Your task to perform on an android device: turn on wifi Image 0: 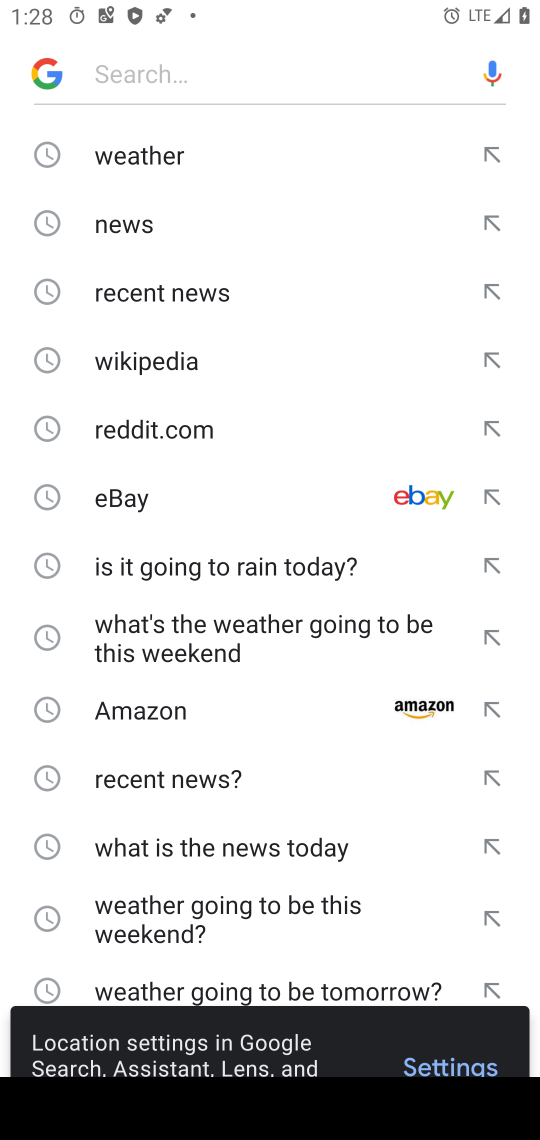
Step 0: press home button
Your task to perform on an android device: turn on wifi Image 1: 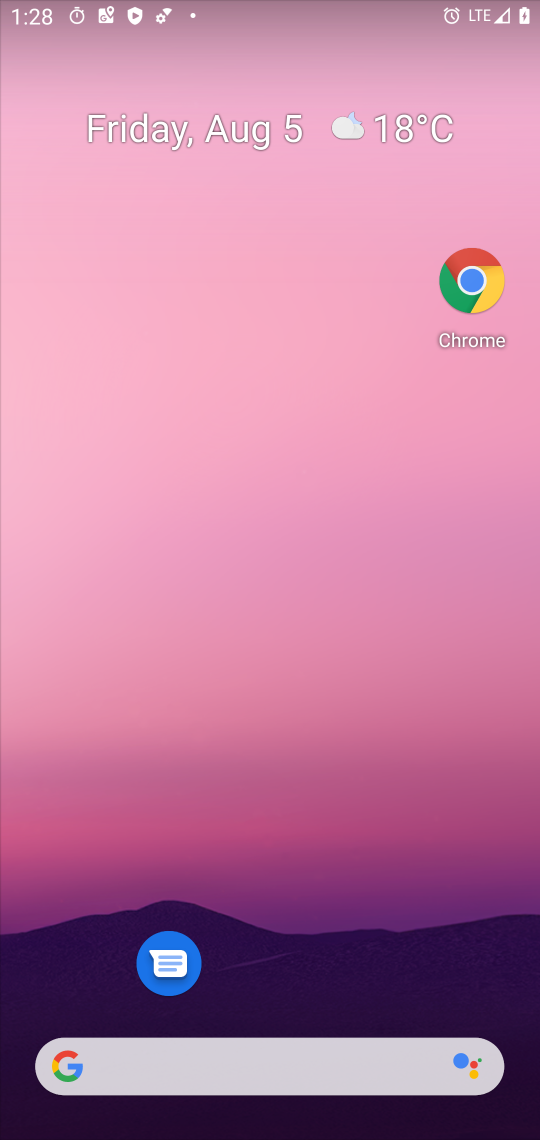
Step 1: drag from (311, 901) to (441, 73)
Your task to perform on an android device: turn on wifi Image 2: 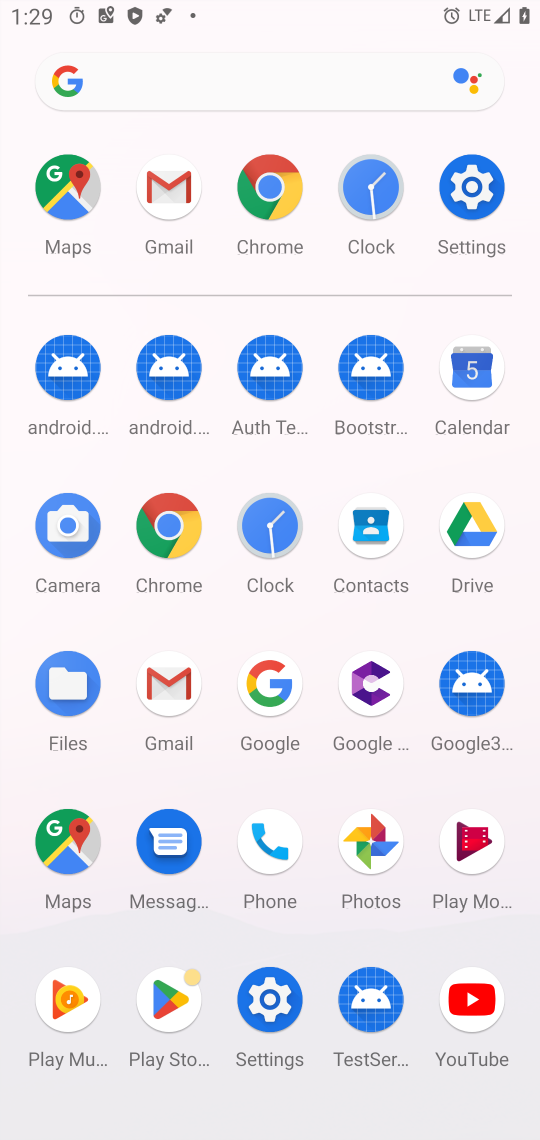
Step 2: click (468, 200)
Your task to perform on an android device: turn on wifi Image 3: 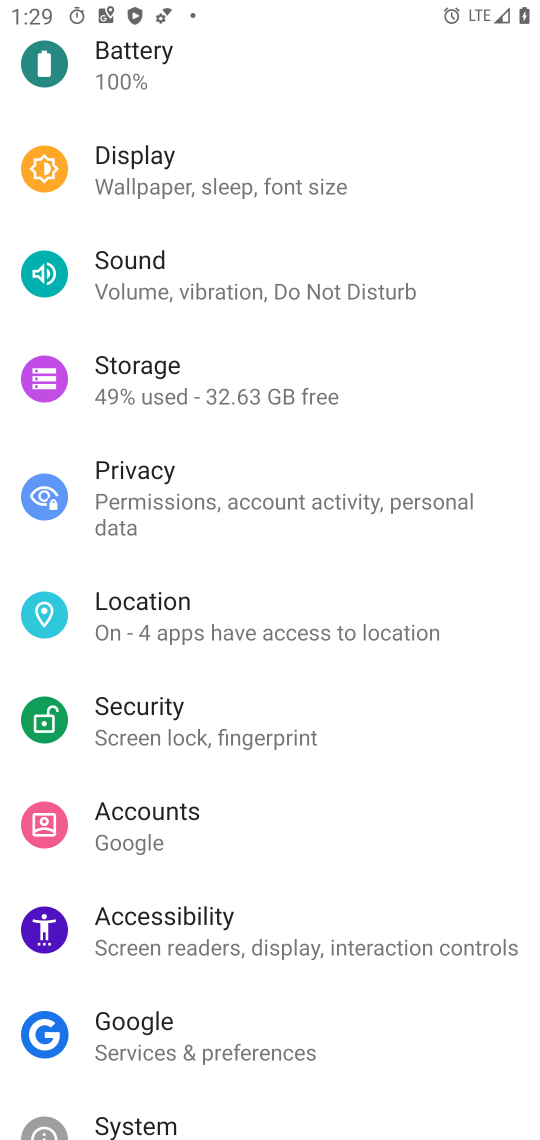
Step 3: drag from (225, 734) to (215, 1136)
Your task to perform on an android device: turn on wifi Image 4: 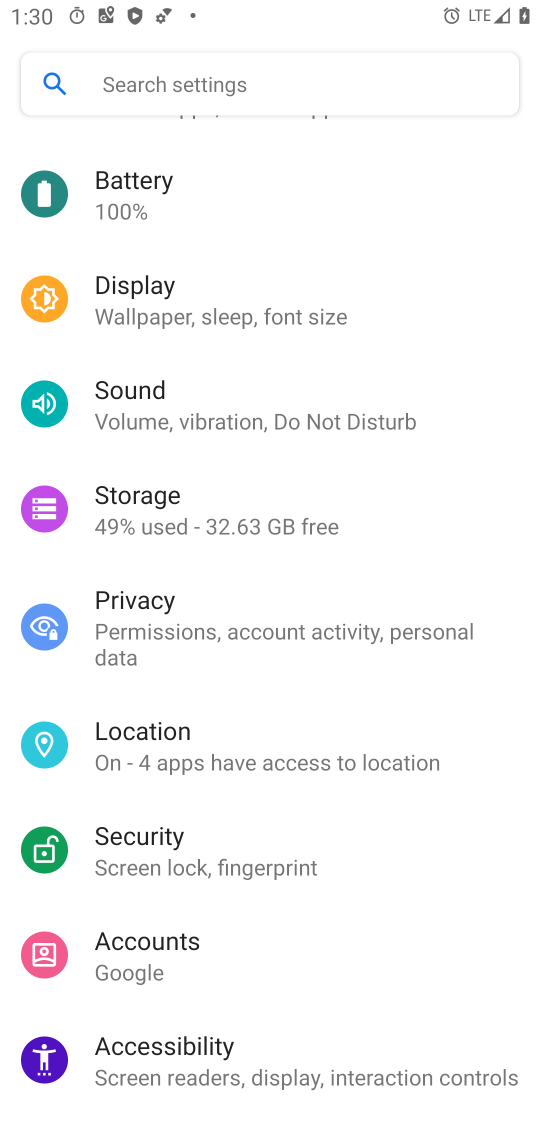
Step 4: drag from (181, 335) to (192, 1075)
Your task to perform on an android device: turn on wifi Image 5: 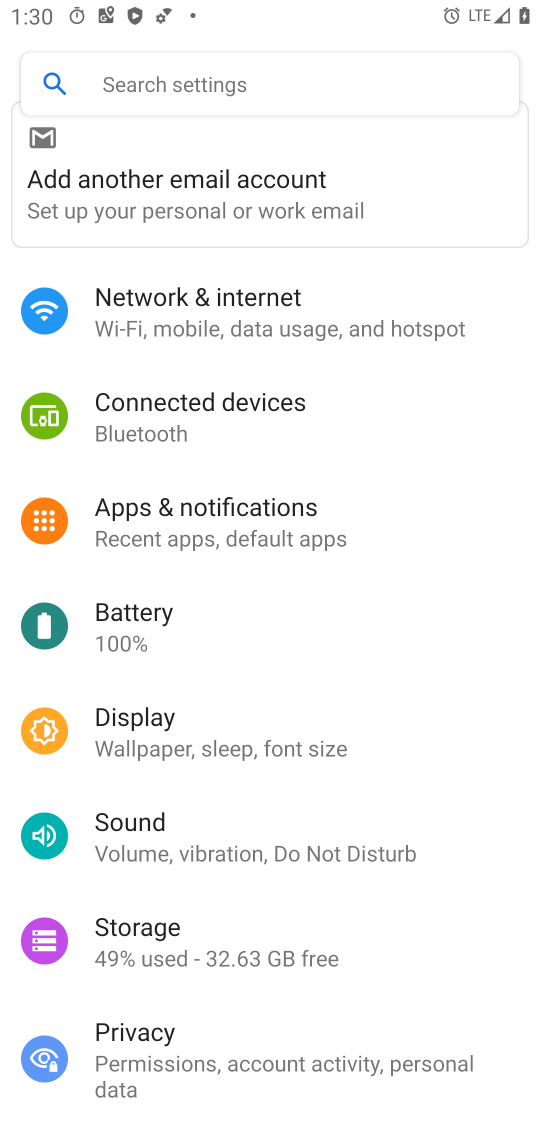
Step 5: click (156, 319)
Your task to perform on an android device: turn on wifi Image 6: 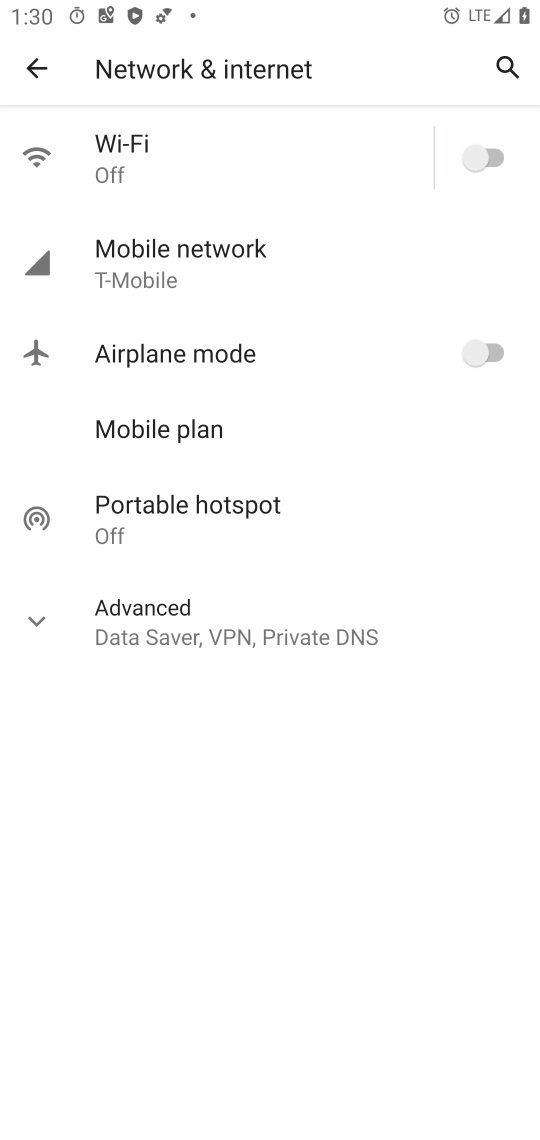
Step 6: click (491, 175)
Your task to perform on an android device: turn on wifi Image 7: 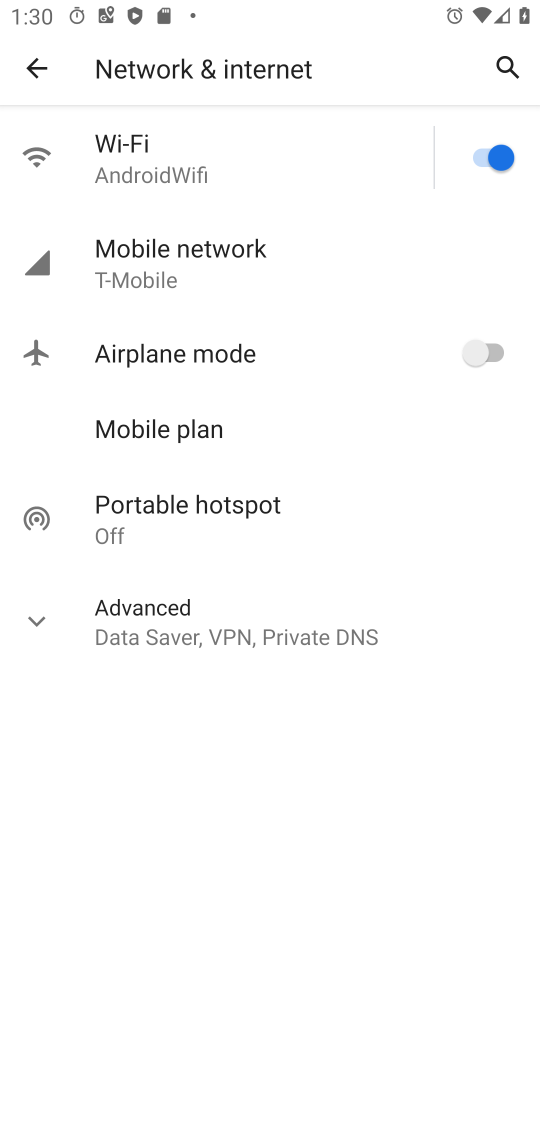
Step 7: task complete